Your task to perform on an android device: What's the weather? Image 0: 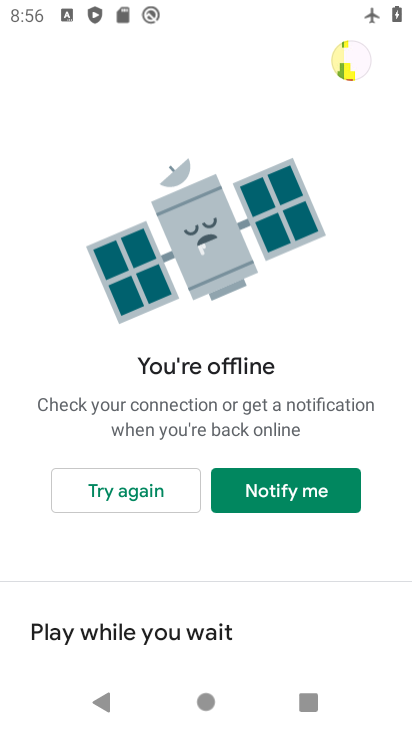
Step 0: press home button
Your task to perform on an android device: What's the weather? Image 1: 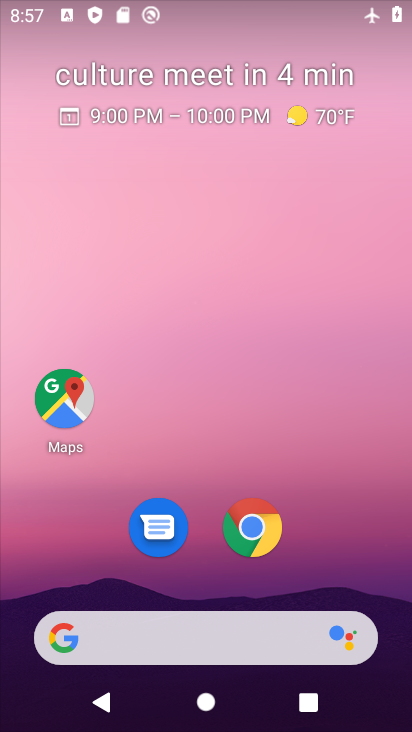
Step 1: drag from (252, 592) to (341, 157)
Your task to perform on an android device: What's the weather? Image 2: 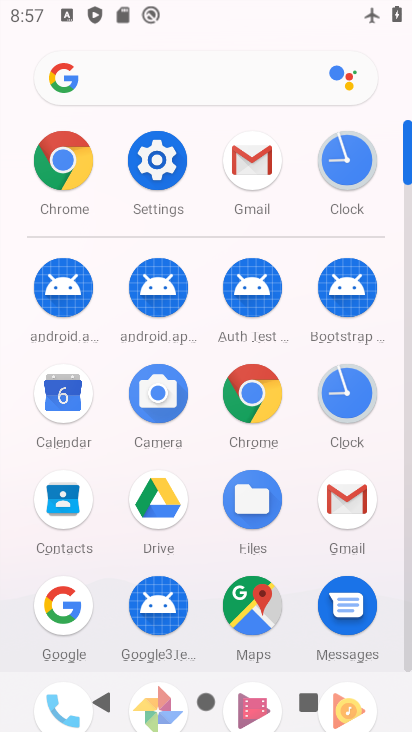
Step 2: click (71, 607)
Your task to perform on an android device: What's the weather? Image 3: 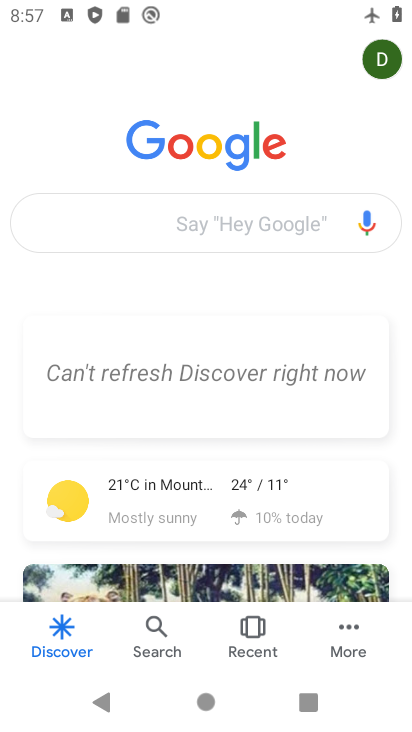
Step 3: click (211, 218)
Your task to perform on an android device: What's the weather? Image 4: 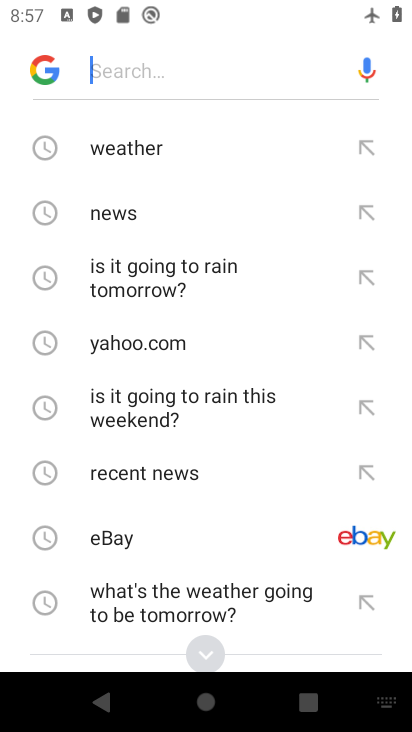
Step 4: click (204, 133)
Your task to perform on an android device: What's the weather? Image 5: 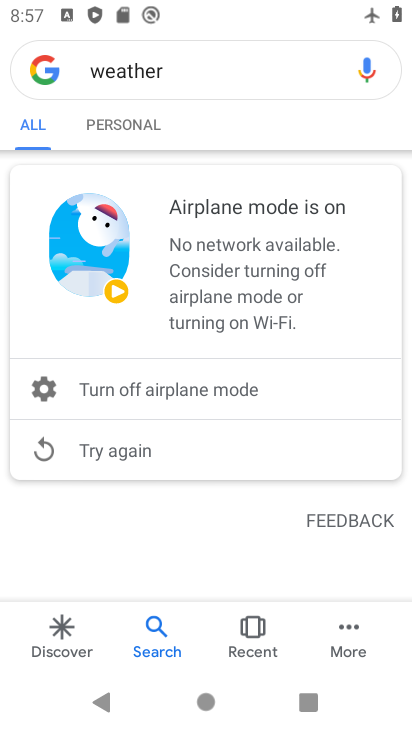
Step 5: task complete